Your task to perform on an android device: Open eBay Image 0: 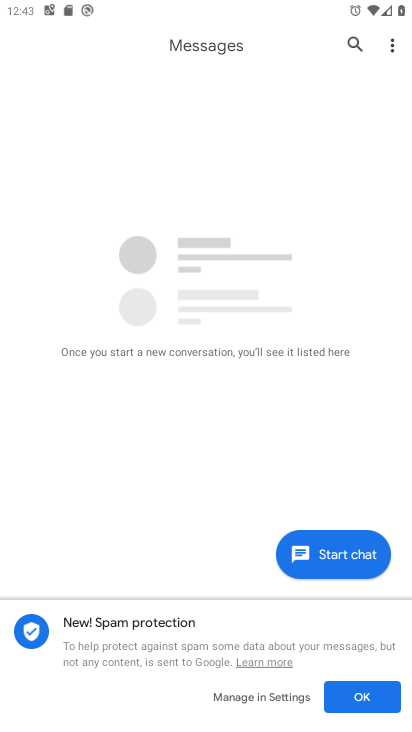
Step 0: press home button
Your task to perform on an android device: Open eBay Image 1: 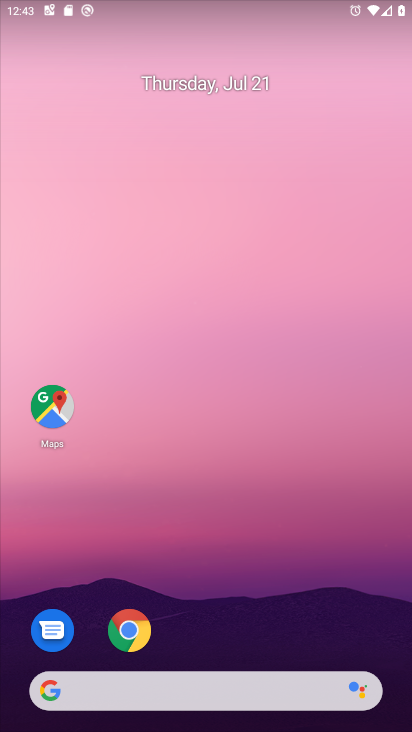
Step 1: drag from (193, 658) to (295, 189)
Your task to perform on an android device: Open eBay Image 2: 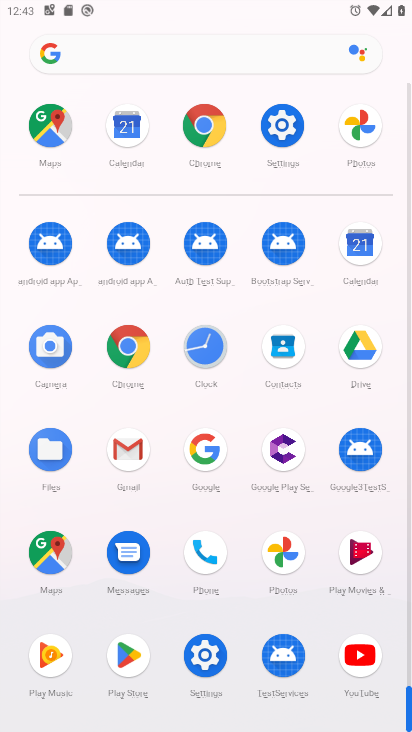
Step 2: click (167, 64)
Your task to perform on an android device: Open eBay Image 3: 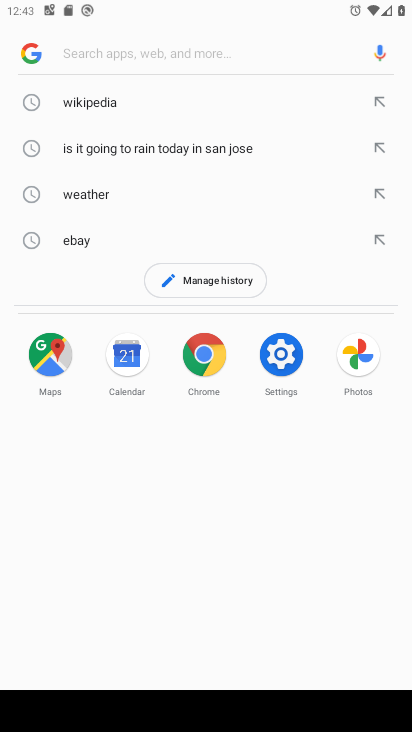
Step 3: click (98, 231)
Your task to perform on an android device: Open eBay Image 4: 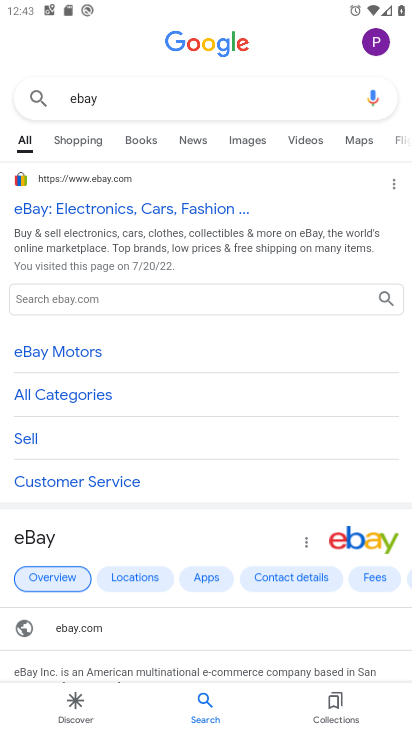
Step 4: click (40, 206)
Your task to perform on an android device: Open eBay Image 5: 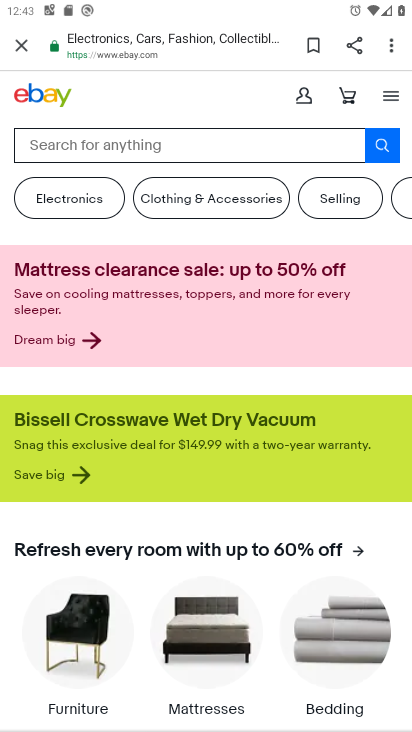
Step 5: task complete